Your task to perform on an android device: Open Google Image 0: 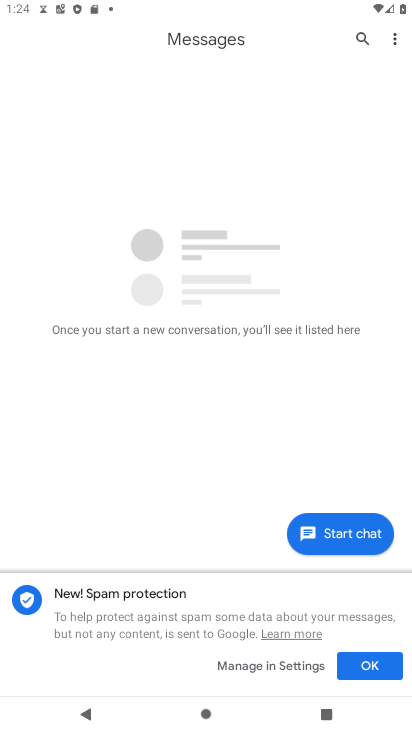
Step 0: press back button
Your task to perform on an android device: Open Google Image 1: 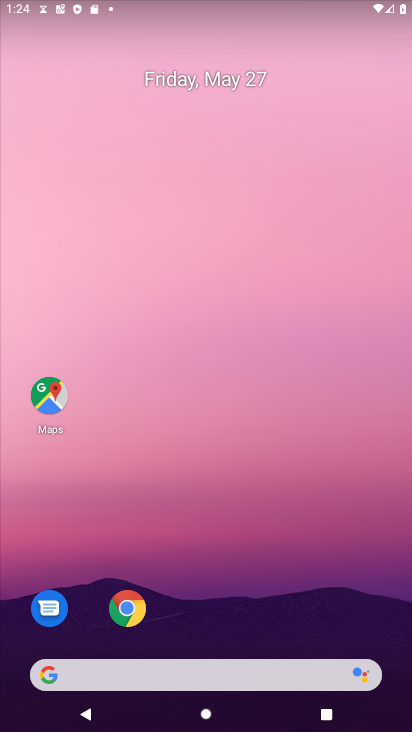
Step 1: drag from (237, 611) to (316, 57)
Your task to perform on an android device: Open Google Image 2: 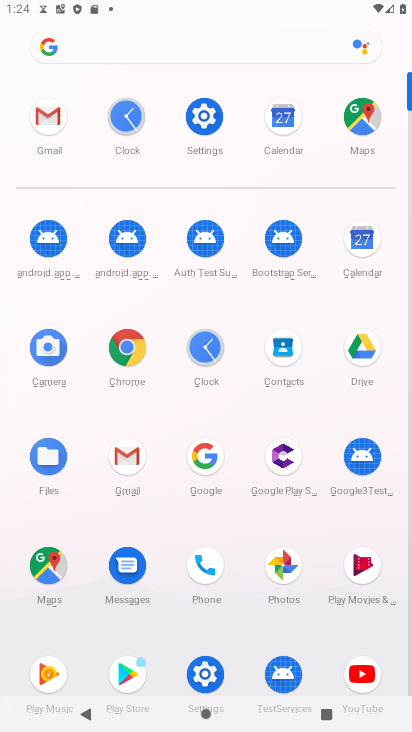
Step 2: click (206, 456)
Your task to perform on an android device: Open Google Image 3: 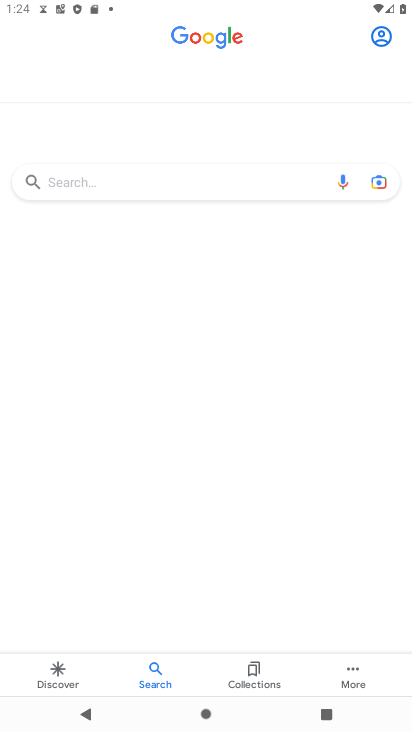
Step 3: task complete